Your task to perform on an android device: move a message to another label in the gmail app Image 0: 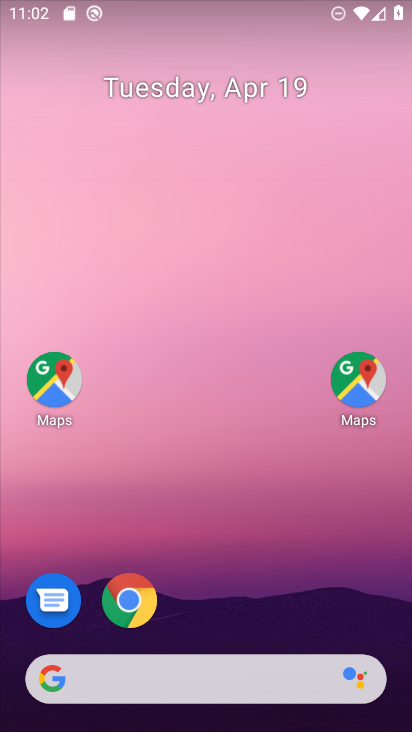
Step 0: drag from (272, 612) to (315, 8)
Your task to perform on an android device: move a message to another label in the gmail app Image 1: 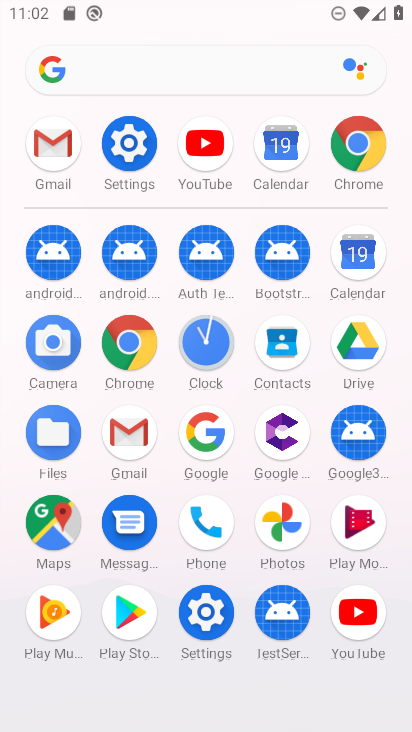
Step 1: click (135, 452)
Your task to perform on an android device: move a message to another label in the gmail app Image 2: 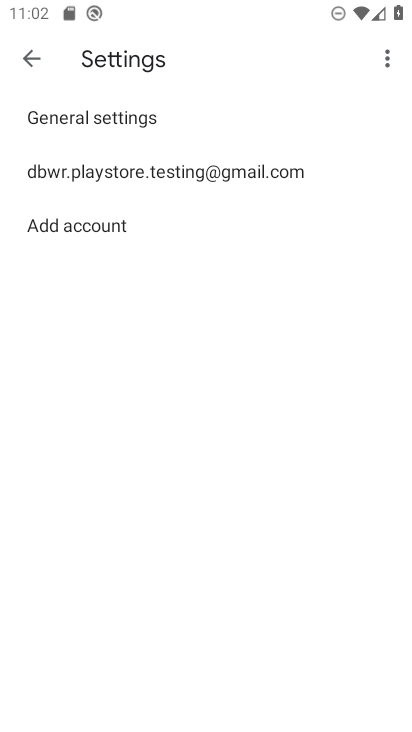
Step 2: click (29, 62)
Your task to perform on an android device: move a message to another label in the gmail app Image 3: 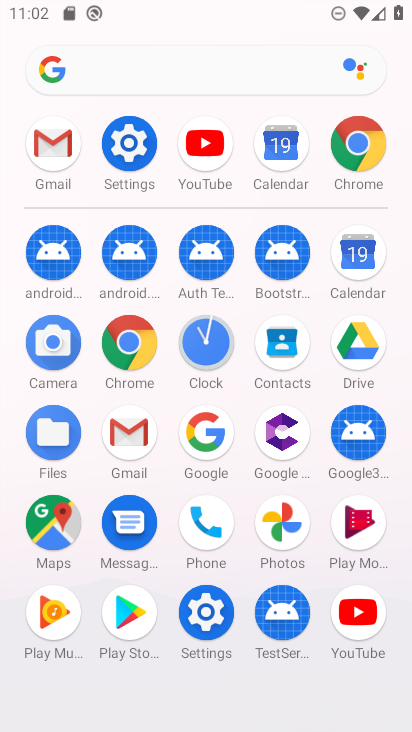
Step 3: click (146, 431)
Your task to perform on an android device: move a message to another label in the gmail app Image 4: 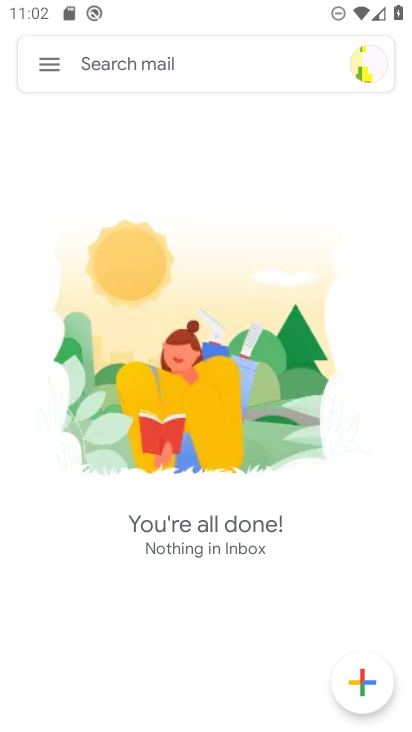
Step 4: click (46, 57)
Your task to perform on an android device: move a message to another label in the gmail app Image 5: 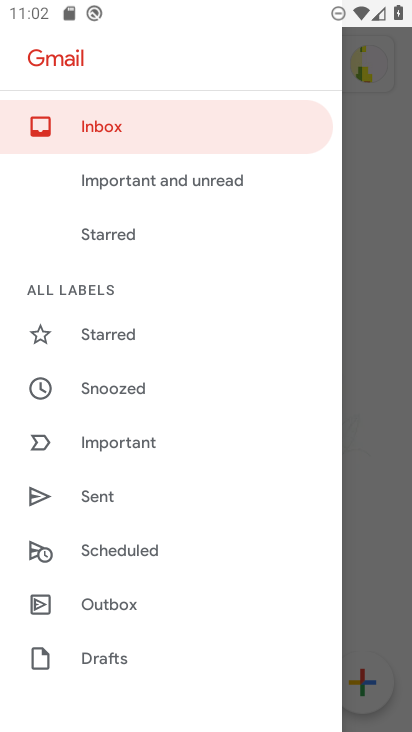
Step 5: click (129, 385)
Your task to perform on an android device: move a message to another label in the gmail app Image 6: 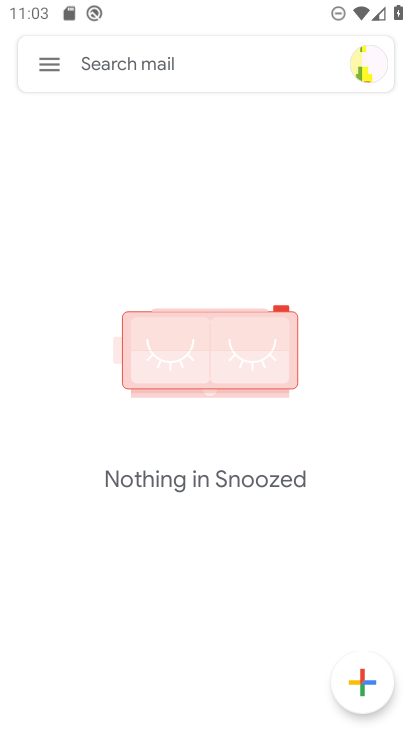
Step 6: task complete